Your task to perform on an android device: check android version Image 0: 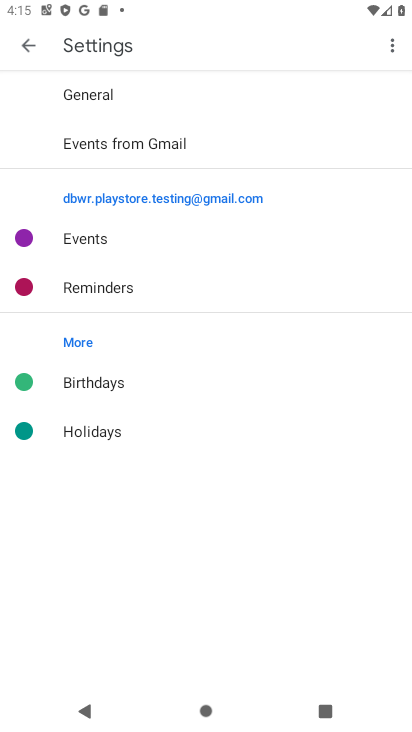
Step 0: press home button
Your task to perform on an android device: check android version Image 1: 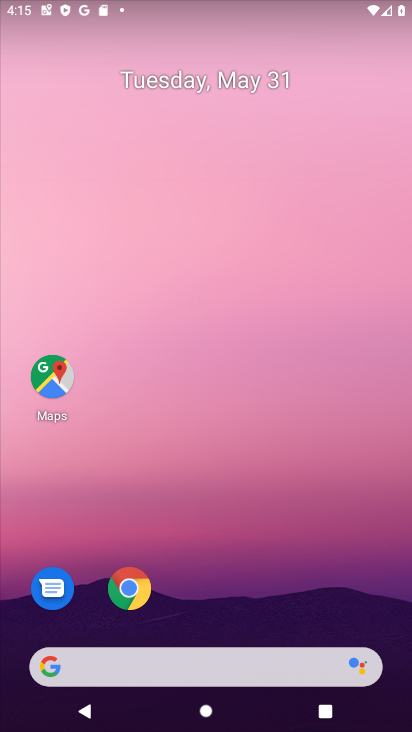
Step 1: drag from (177, 617) to (365, 4)
Your task to perform on an android device: check android version Image 2: 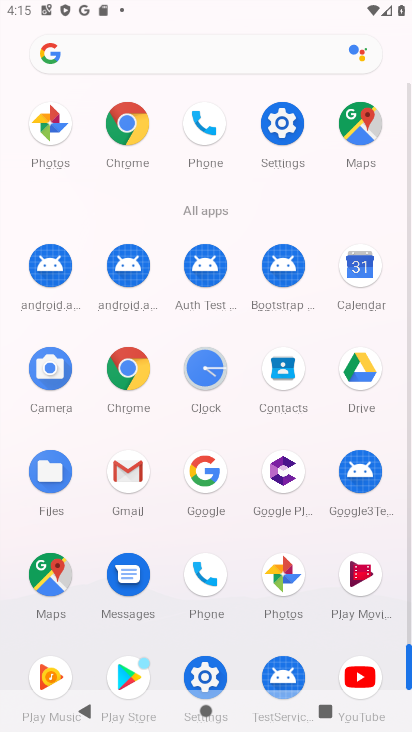
Step 2: click (274, 189)
Your task to perform on an android device: check android version Image 3: 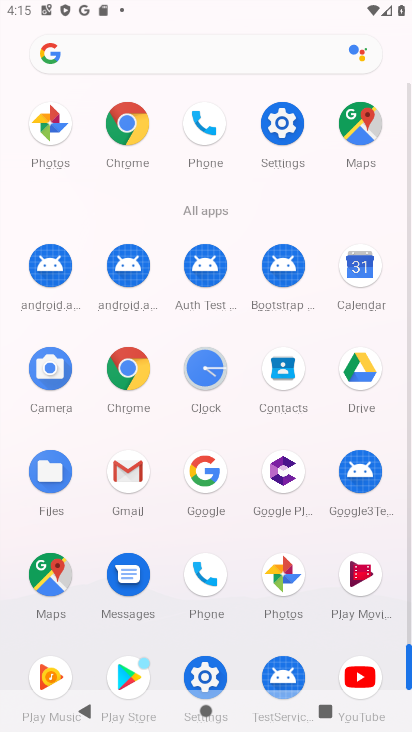
Step 3: click (277, 163)
Your task to perform on an android device: check android version Image 4: 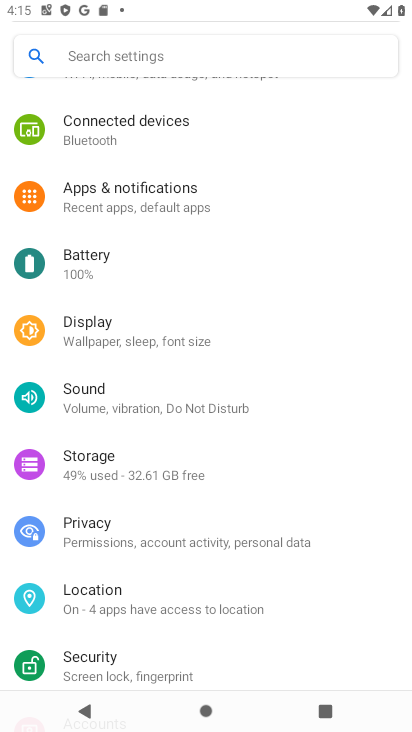
Step 4: task complete